Your task to perform on an android device: Search for Italian restaurants on Maps Image 0: 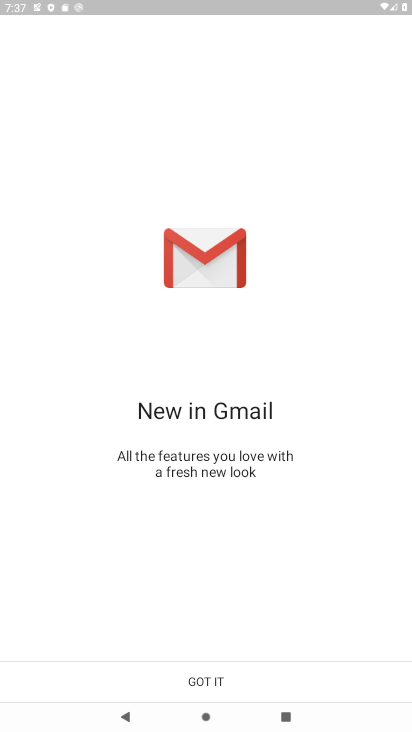
Step 0: press home button
Your task to perform on an android device: Search for Italian restaurants on Maps Image 1: 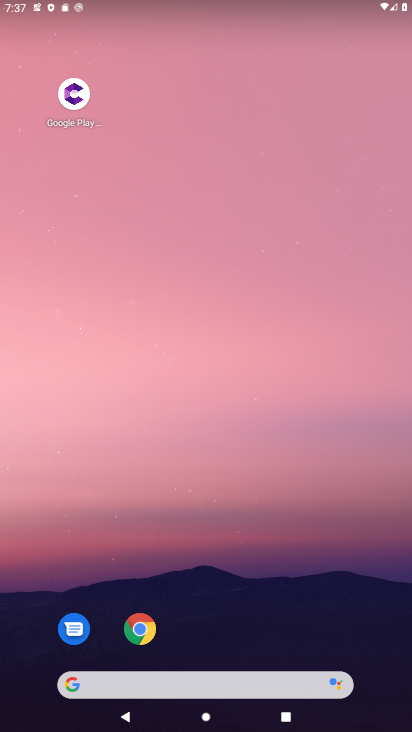
Step 1: drag from (269, 662) to (215, 7)
Your task to perform on an android device: Search for Italian restaurants on Maps Image 2: 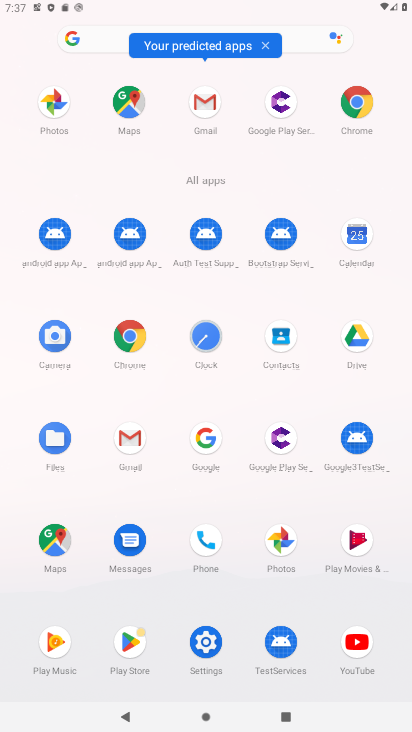
Step 2: click (125, 112)
Your task to perform on an android device: Search for Italian restaurants on Maps Image 3: 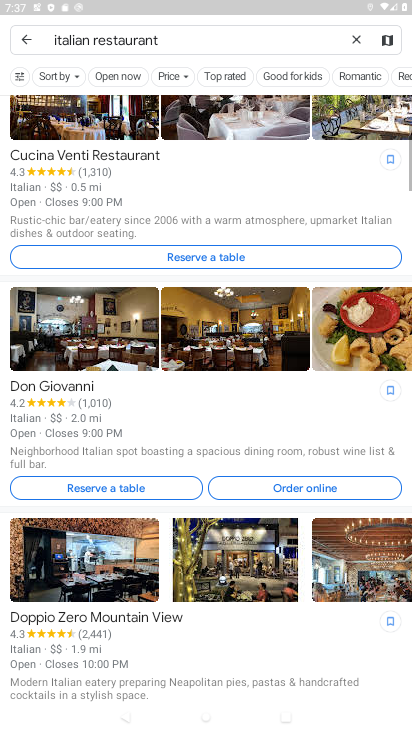
Step 3: task complete